Your task to perform on an android device: set an alarm Image 0: 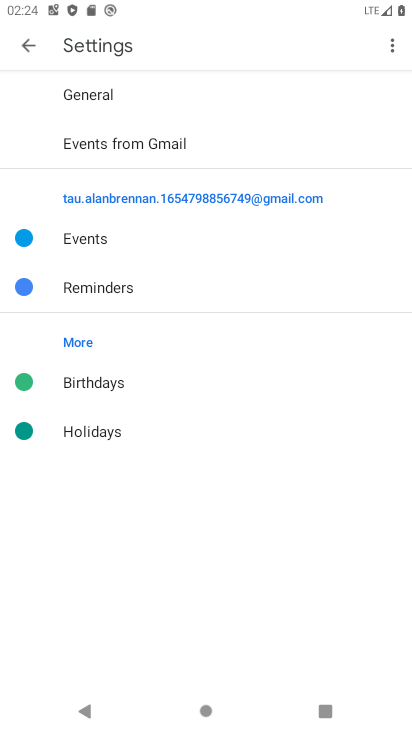
Step 0: press home button
Your task to perform on an android device: set an alarm Image 1: 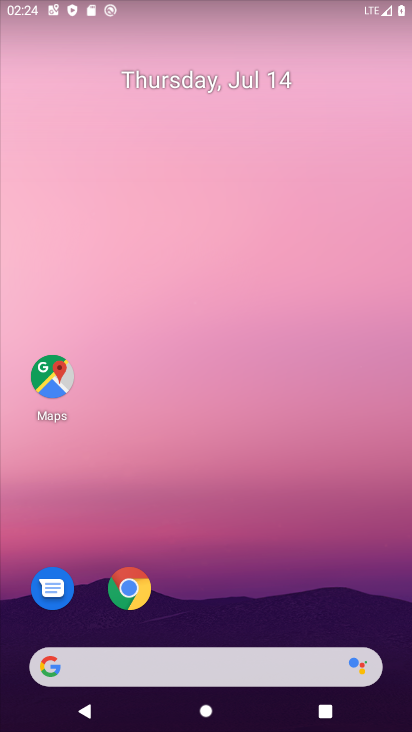
Step 1: drag from (122, 685) to (175, 151)
Your task to perform on an android device: set an alarm Image 2: 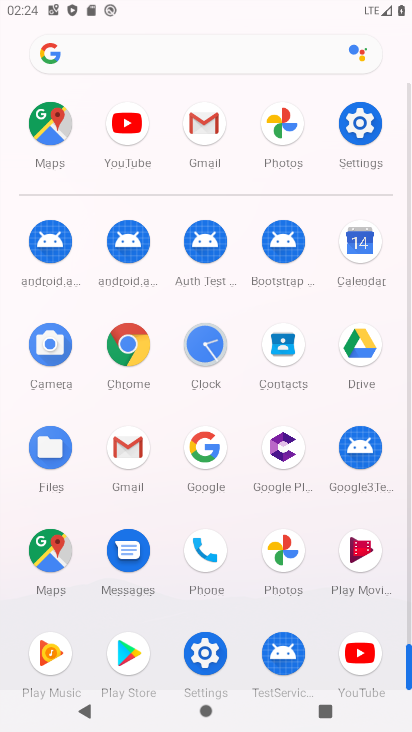
Step 2: click (204, 344)
Your task to perform on an android device: set an alarm Image 3: 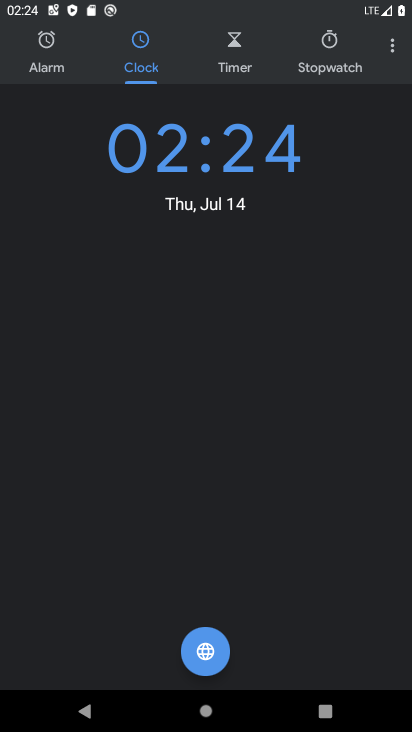
Step 3: click (58, 50)
Your task to perform on an android device: set an alarm Image 4: 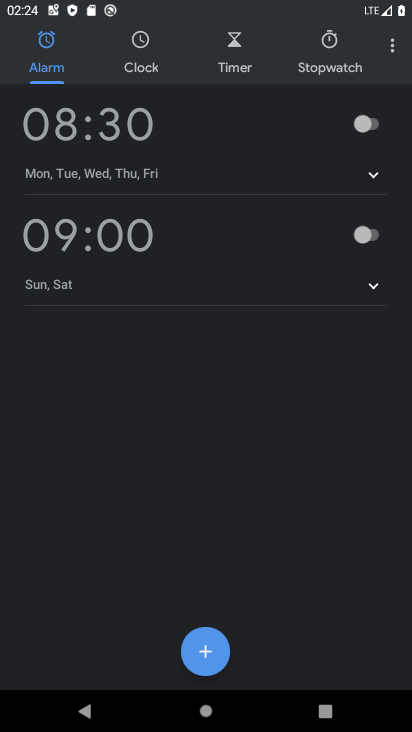
Step 4: click (216, 646)
Your task to perform on an android device: set an alarm Image 5: 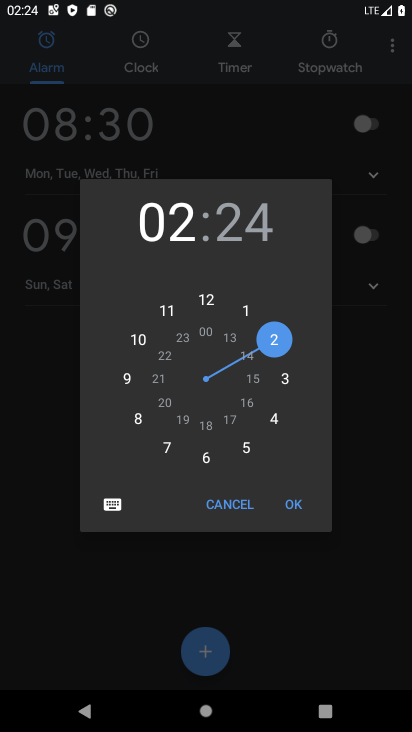
Step 5: click (302, 505)
Your task to perform on an android device: set an alarm Image 6: 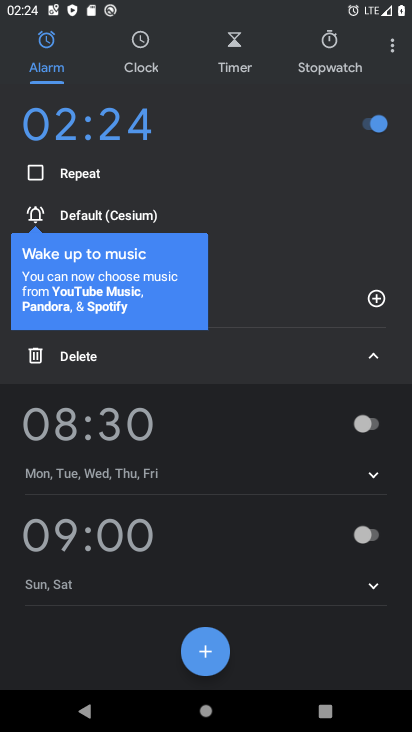
Step 6: task complete